Your task to perform on an android device: turn on translation in the chrome app Image 0: 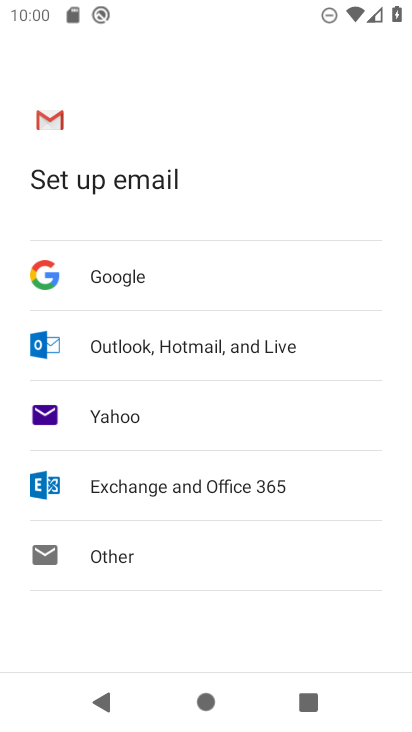
Step 0: press home button
Your task to perform on an android device: turn on translation in the chrome app Image 1: 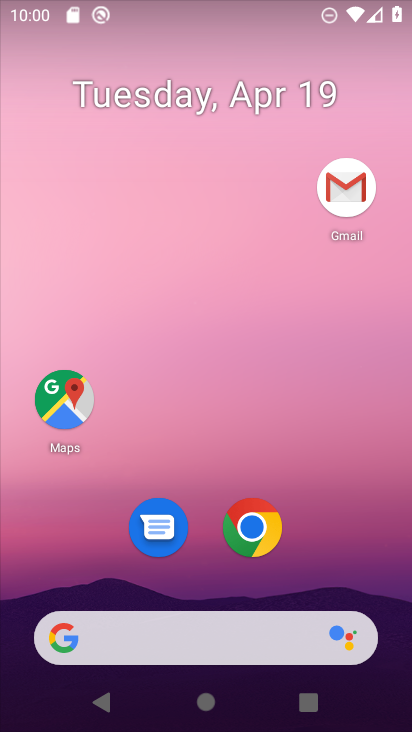
Step 1: drag from (374, 483) to (382, 102)
Your task to perform on an android device: turn on translation in the chrome app Image 2: 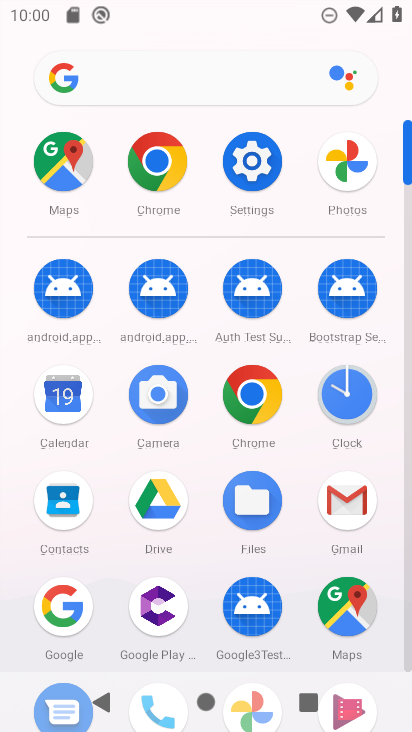
Step 2: click (247, 405)
Your task to perform on an android device: turn on translation in the chrome app Image 3: 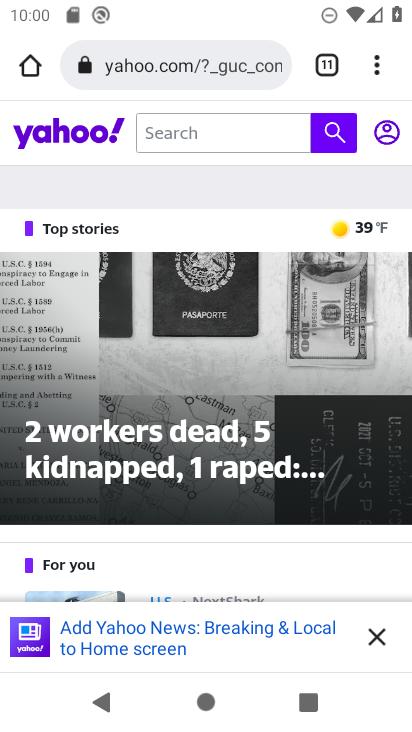
Step 3: drag from (384, 69) to (215, 546)
Your task to perform on an android device: turn on translation in the chrome app Image 4: 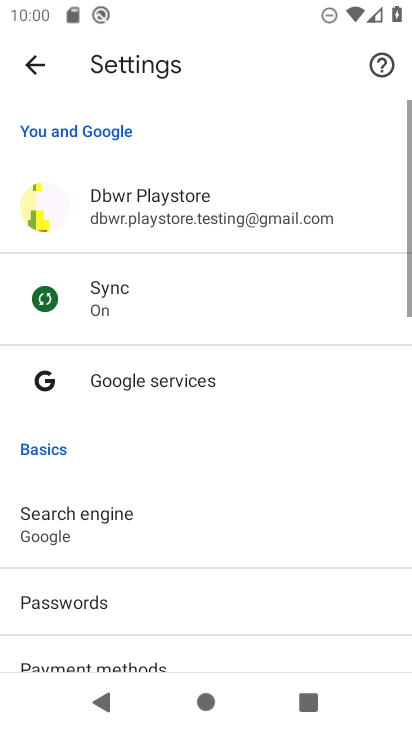
Step 4: drag from (282, 596) to (354, 188)
Your task to perform on an android device: turn on translation in the chrome app Image 5: 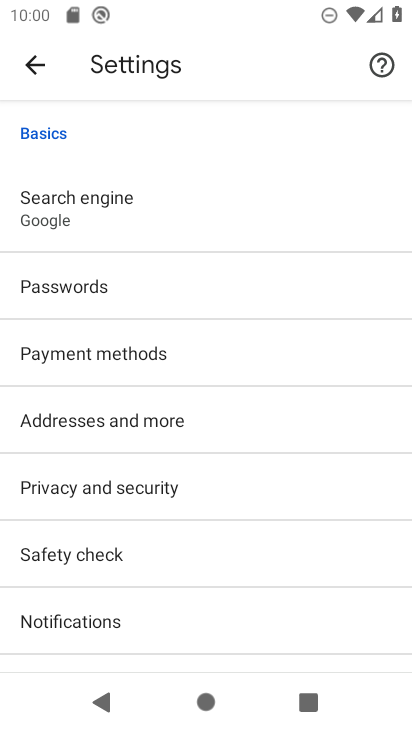
Step 5: drag from (297, 550) to (292, 240)
Your task to perform on an android device: turn on translation in the chrome app Image 6: 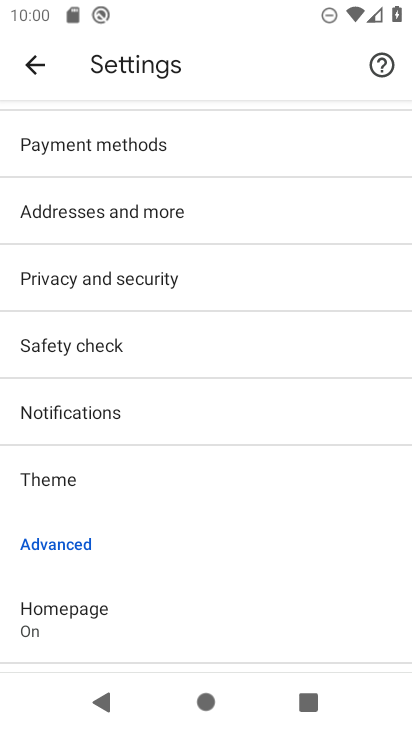
Step 6: drag from (252, 628) to (289, 197)
Your task to perform on an android device: turn on translation in the chrome app Image 7: 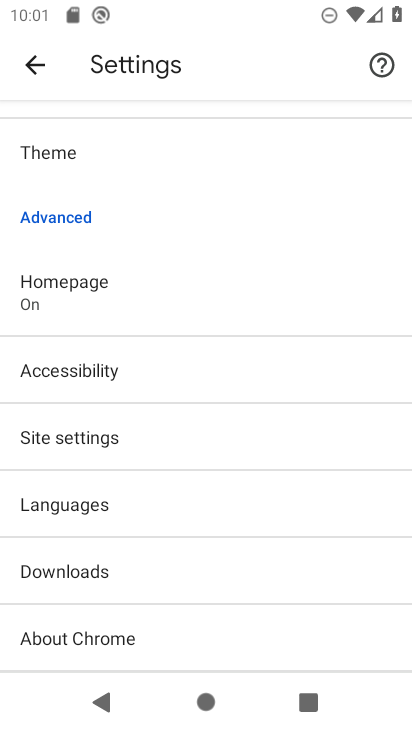
Step 7: click (149, 512)
Your task to perform on an android device: turn on translation in the chrome app Image 8: 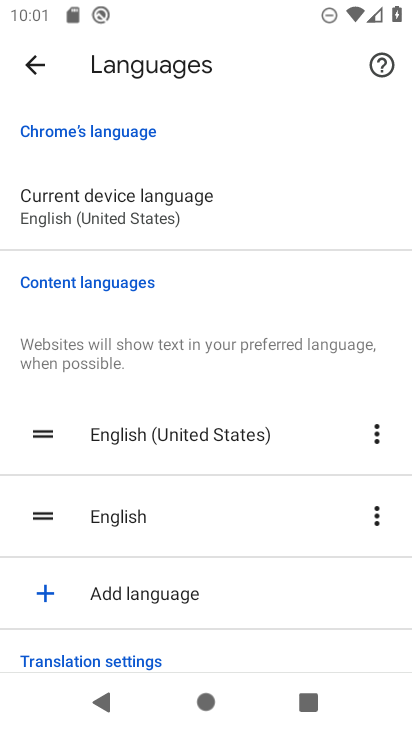
Step 8: task complete